Your task to perform on an android device: Toggle the flashlight Image 0: 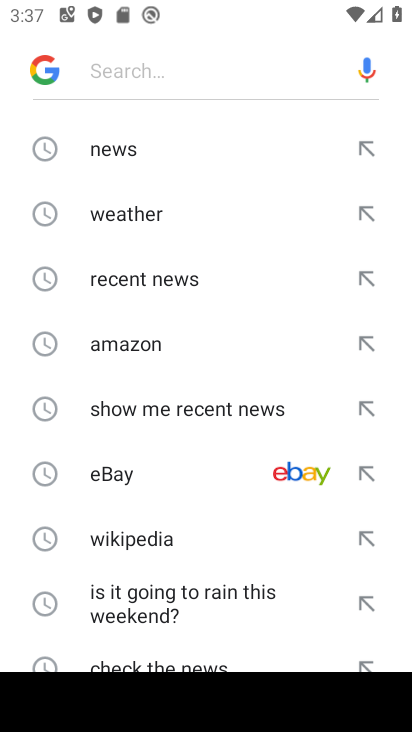
Step 0: press back button
Your task to perform on an android device: Toggle the flashlight Image 1: 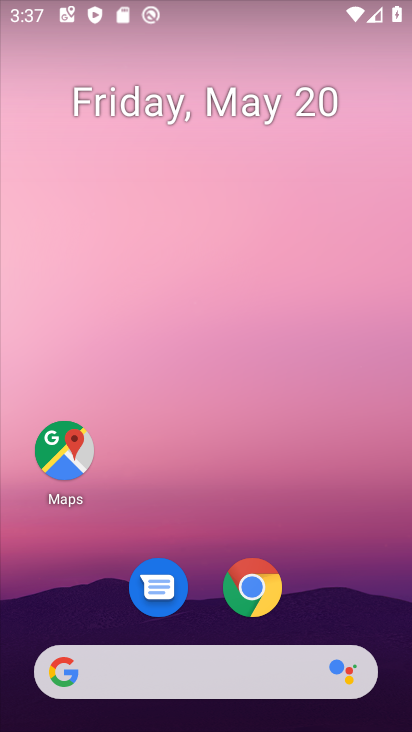
Step 1: drag from (331, 591) to (240, 27)
Your task to perform on an android device: Toggle the flashlight Image 2: 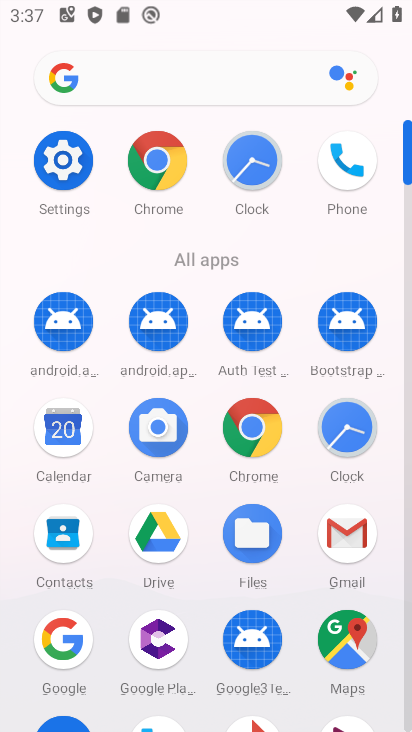
Step 2: drag from (10, 568) to (14, 215)
Your task to perform on an android device: Toggle the flashlight Image 3: 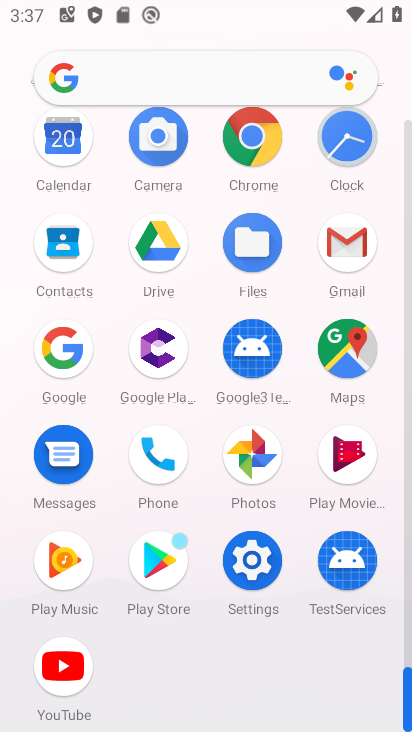
Step 3: click (248, 556)
Your task to perform on an android device: Toggle the flashlight Image 4: 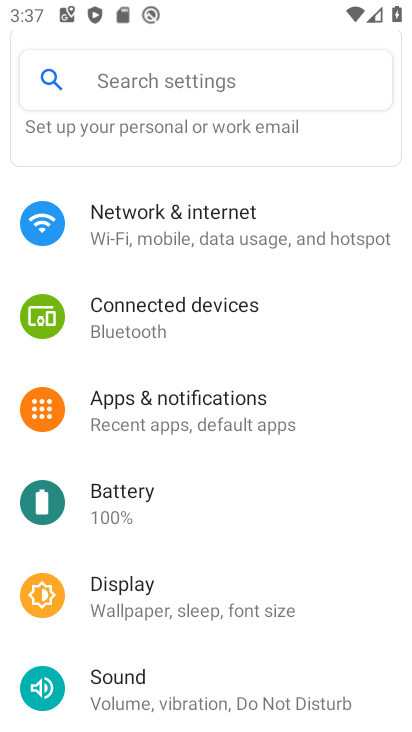
Step 4: click (232, 208)
Your task to perform on an android device: Toggle the flashlight Image 5: 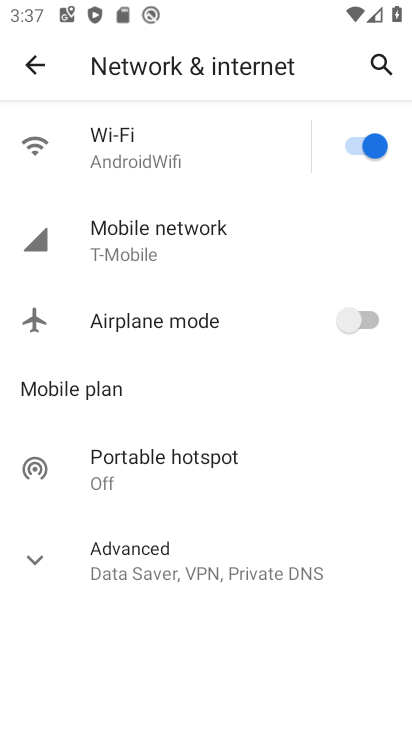
Step 5: click (36, 555)
Your task to perform on an android device: Toggle the flashlight Image 6: 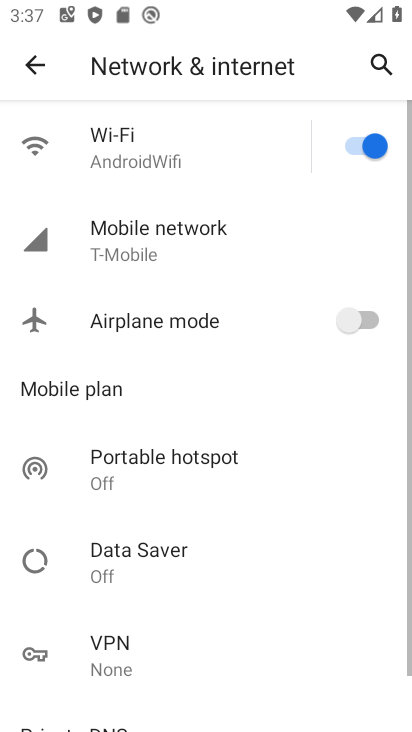
Step 6: task complete